Your task to perform on an android device: What's the weather like in New York? Image 0: 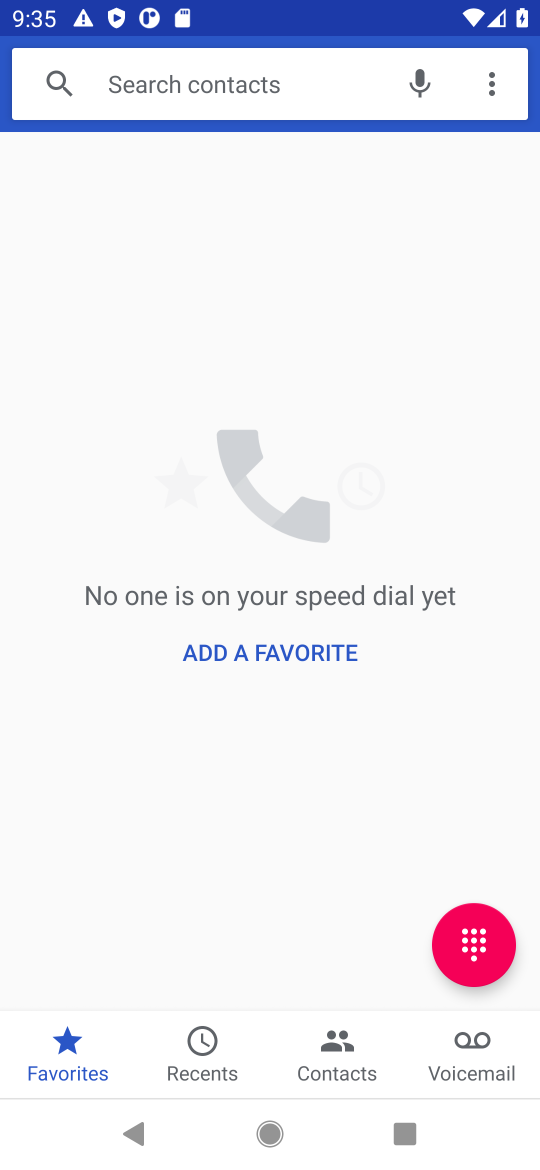
Step 0: press home button
Your task to perform on an android device: What's the weather like in New York? Image 1: 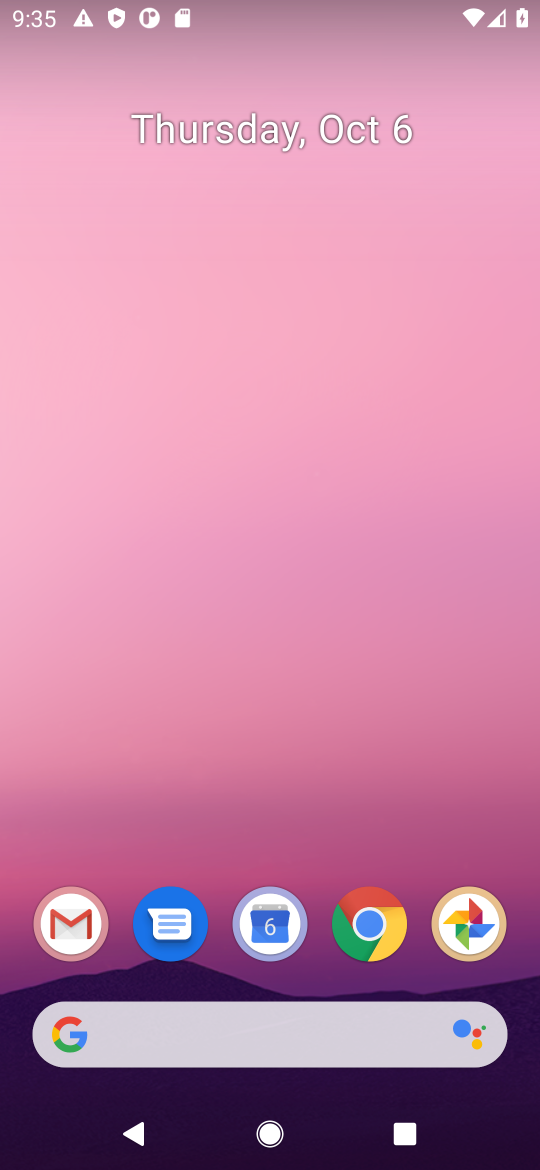
Step 1: click (369, 921)
Your task to perform on an android device: What's the weather like in New York? Image 2: 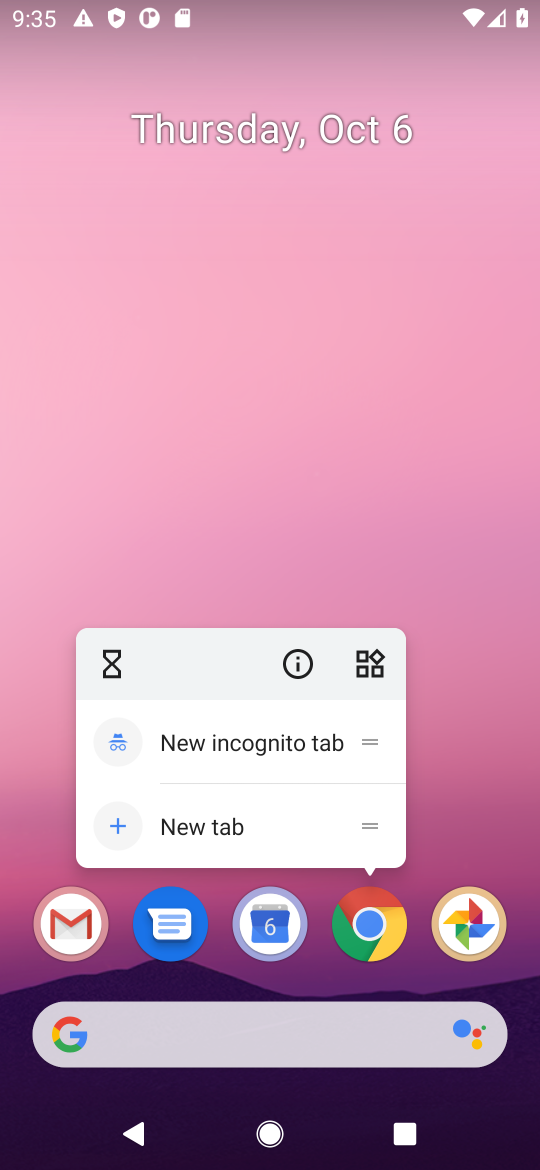
Step 2: click (369, 921)
Your task to perform on an android device: What's the weather like in New York? Image 3: 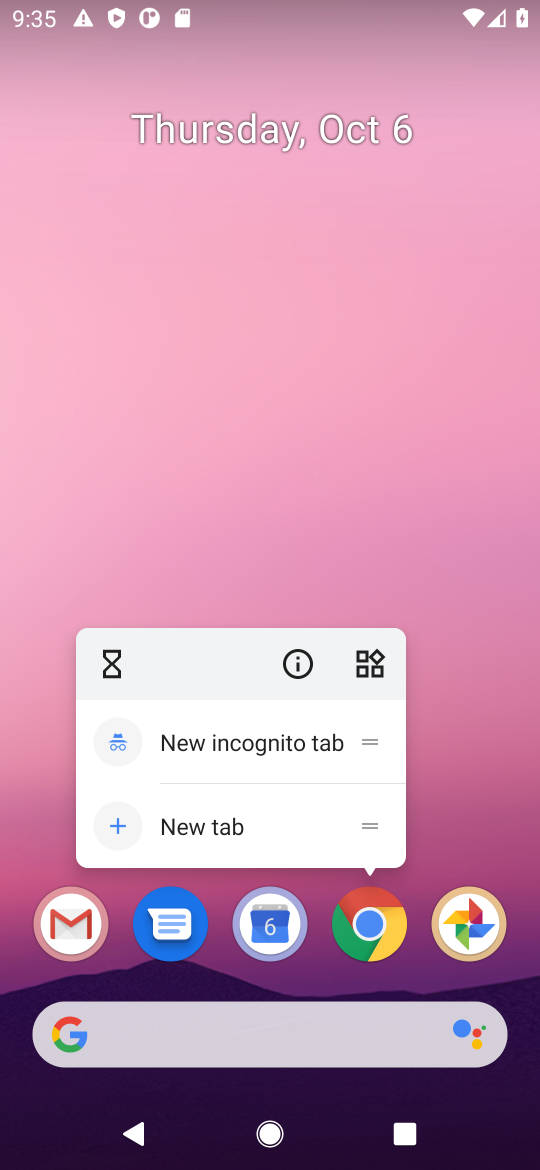
Step 3: click (369, 923)
Your task to perform on an android device: What's the weather like in New York? Image 4: 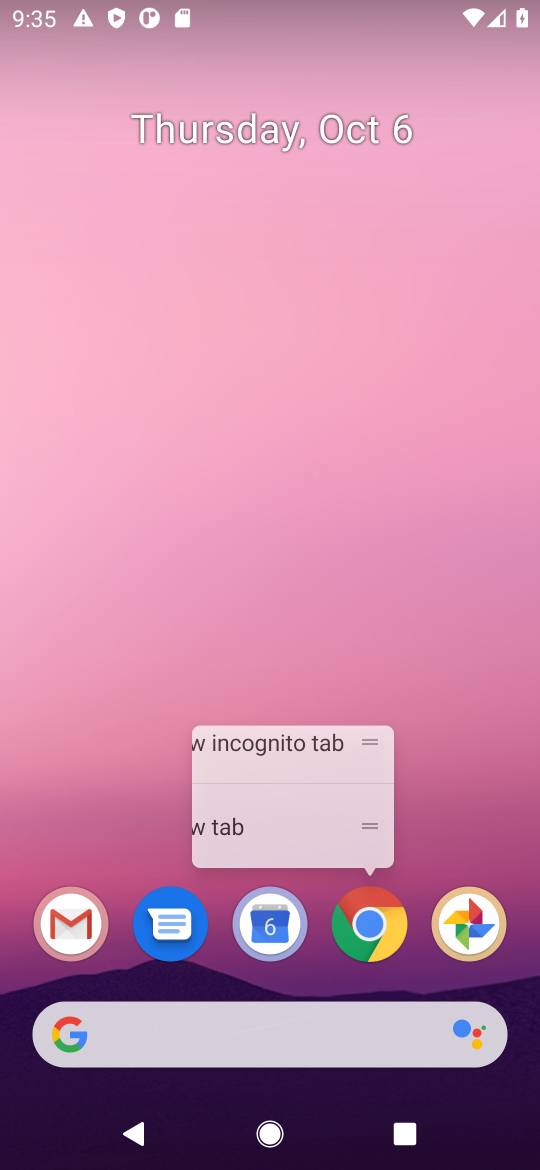
Step 4: click (369, 923)
Your task to perform on an android device: What's the weather like in New York? Image 5: 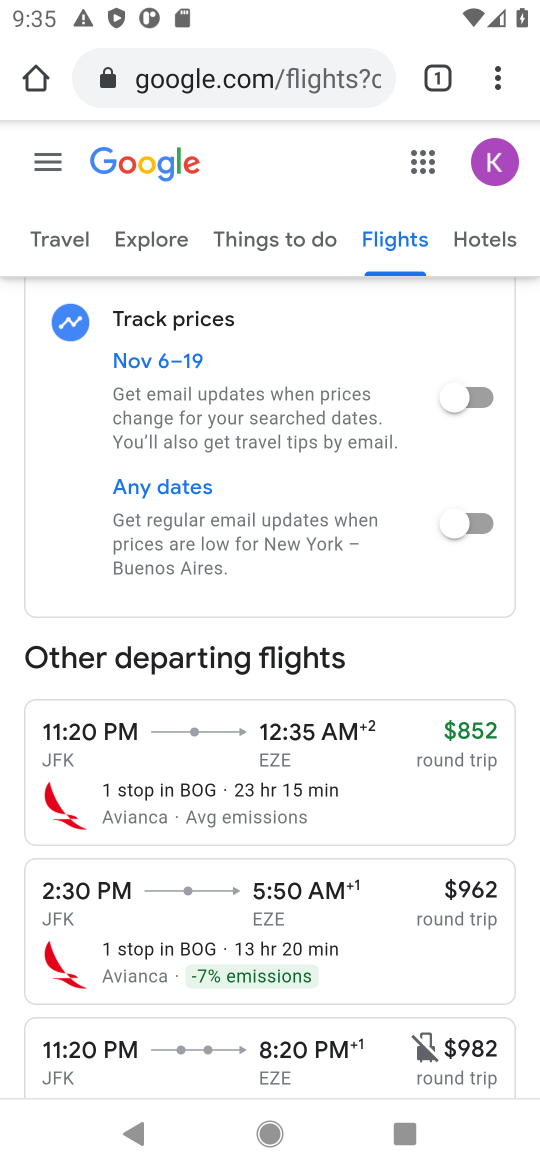
Step 5: click (296, 69)
Your task to perform on an android device: What's the weather like in New York? Image 6: 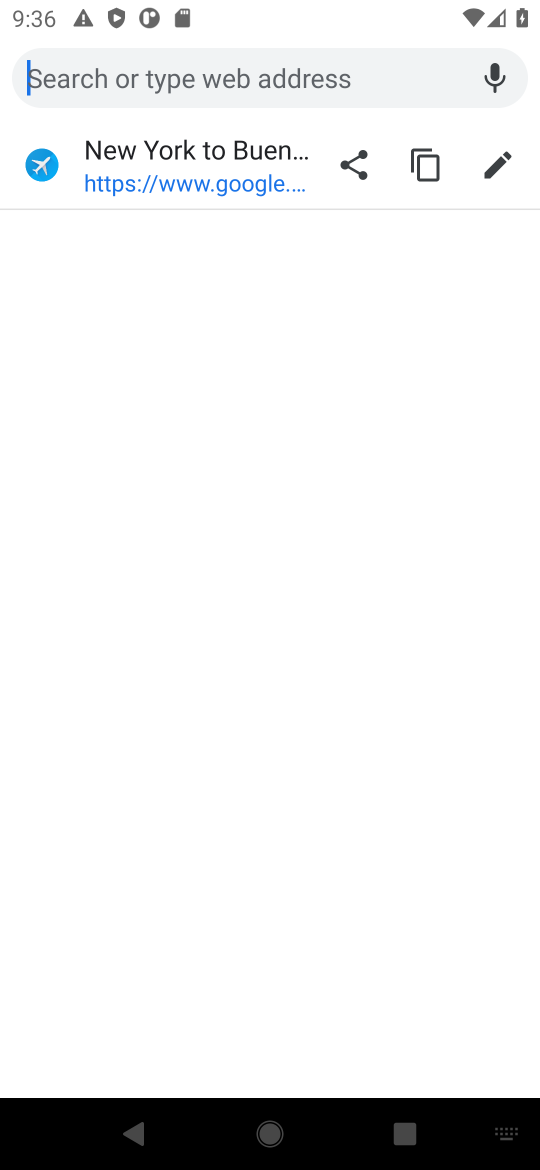
Step 6: type " weather like in New York"
Your task to perform on an android device: What's the weather like in New York? Image 7: 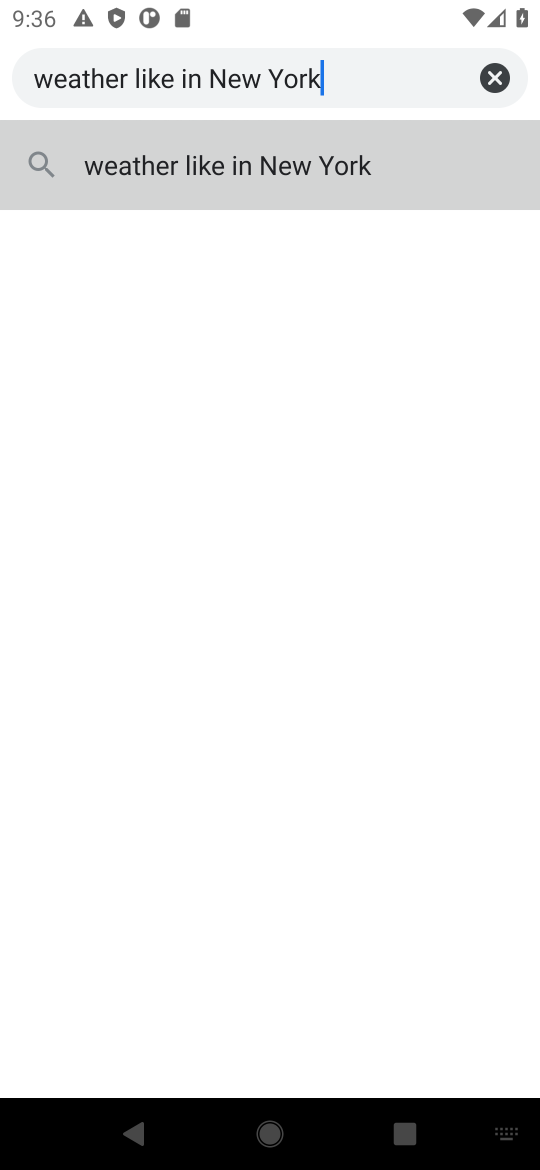
Step 7: click (252, 167)
Your task to perform on an android device: What's the weather like in New York? Image 8: 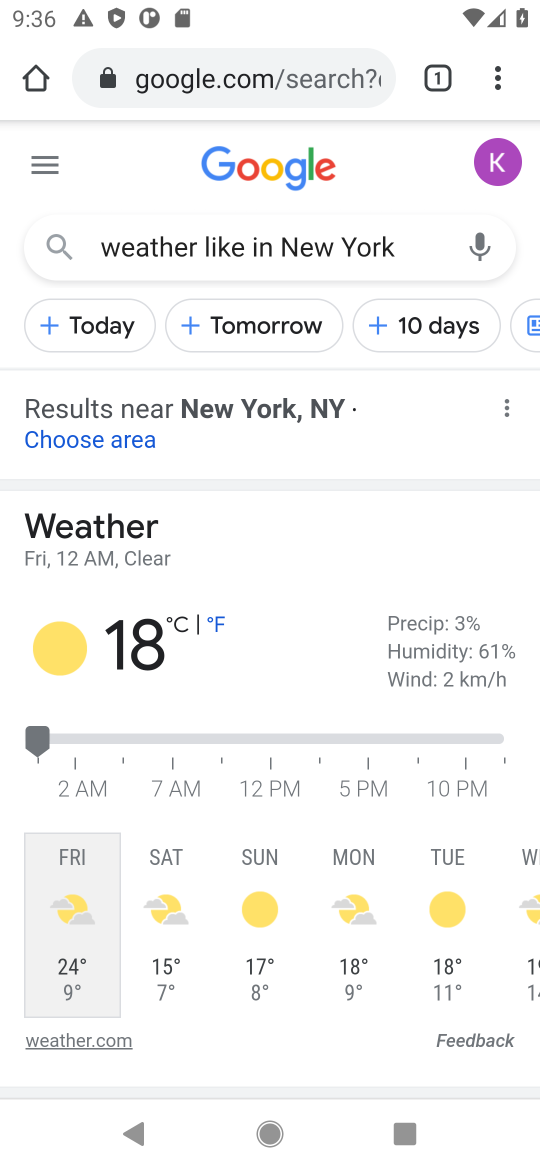
Step 8: task complete